Your task to perform on an android device: Open Google Chrome Image 0: 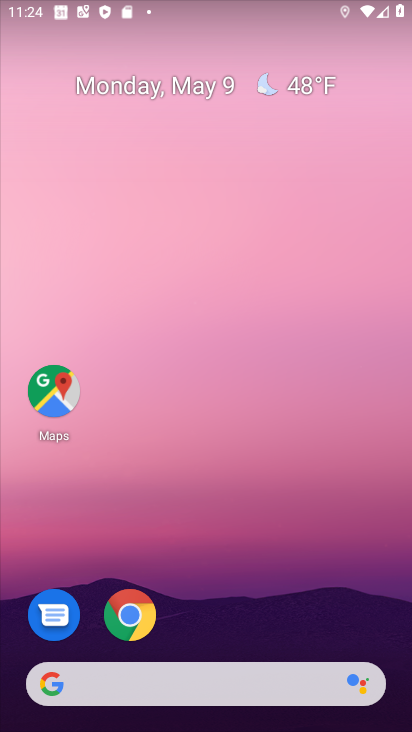
Step 0: click (139, 613)
Your task to perform on an android device: Open Google Chrome Image 1: 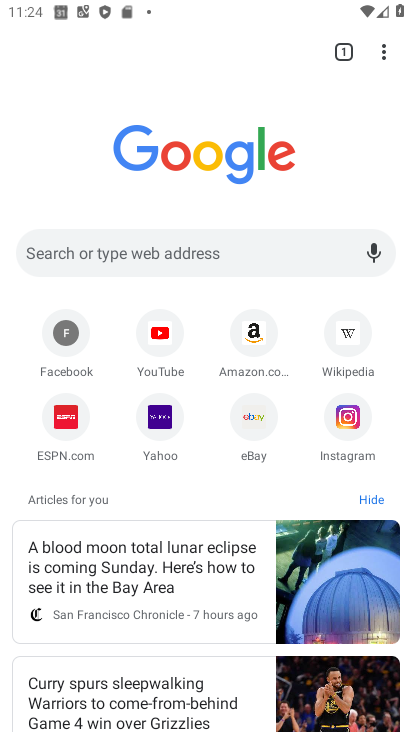
Step 1: task complete